Your task to perform on an android device: refresh tabs in the chrome app Image 0: 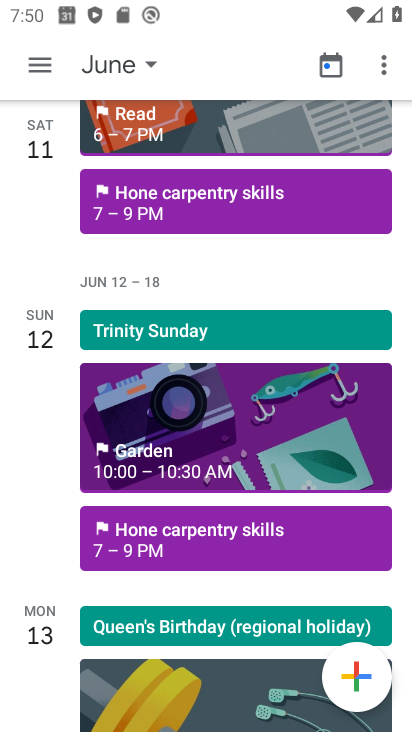
Step 0: press home button
Your task to perform on an android device: refresh tabs in the chrome app Image 1: 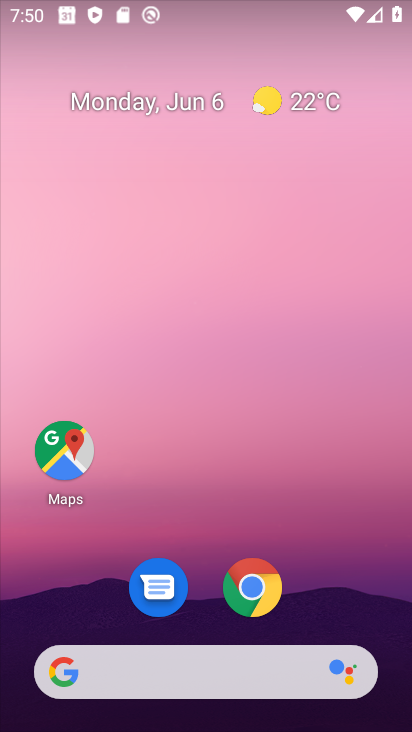
Step 1: click (250, 589)
Your task to perform on an android device: refresh tabs in the chrome app Image 2: 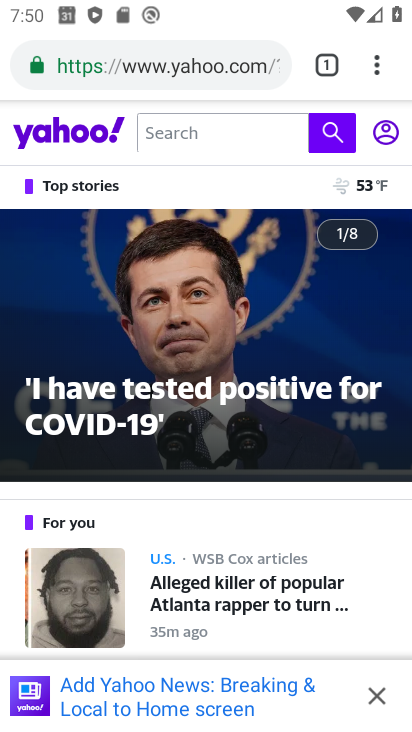
Step 2: click (372, 66)
Your task to perform on an android device: refresh tabs in the chrome app Image 3: 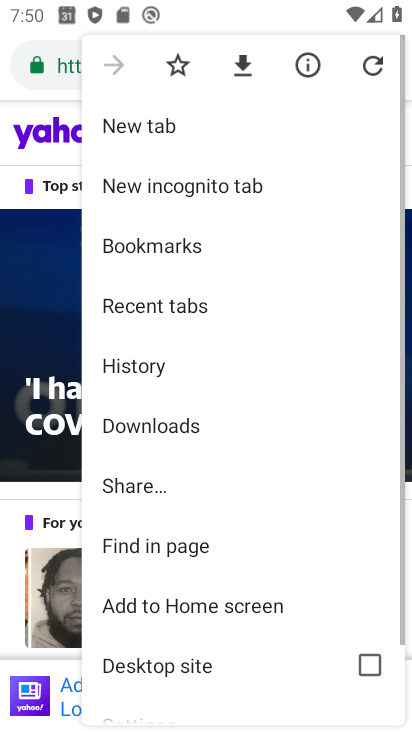
Step 3: click (372, 66)
Your task to perform on an android device: refresh tabs in the chrome app Image 4: 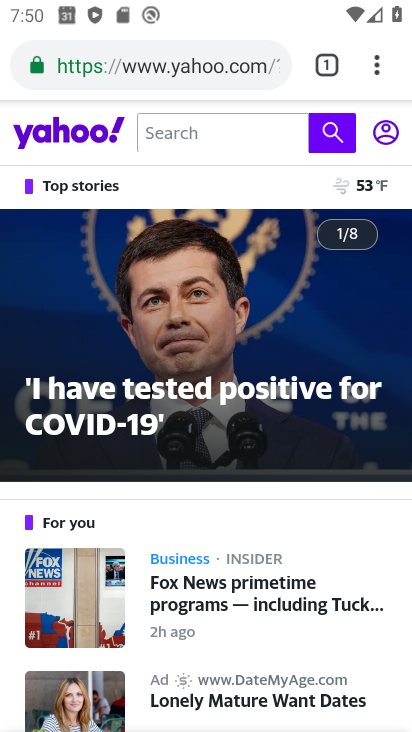
Step 4: task complete